Your task to perform on an android device: Go to accessibility settings Image 0: 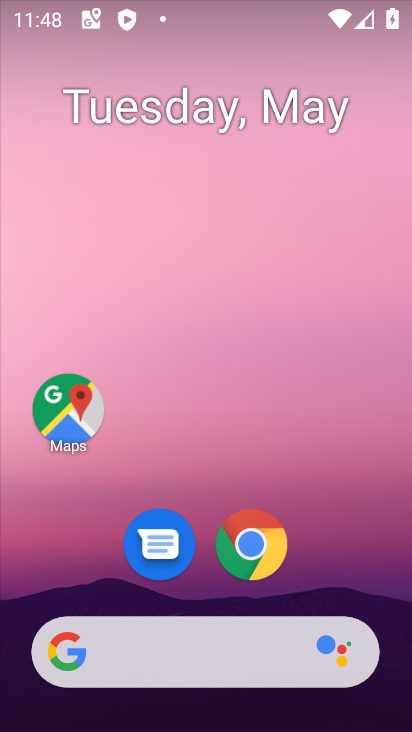
Step 0: click (197, 5)
Your task to perform on an android device: Go to accessibility settings Image 1: 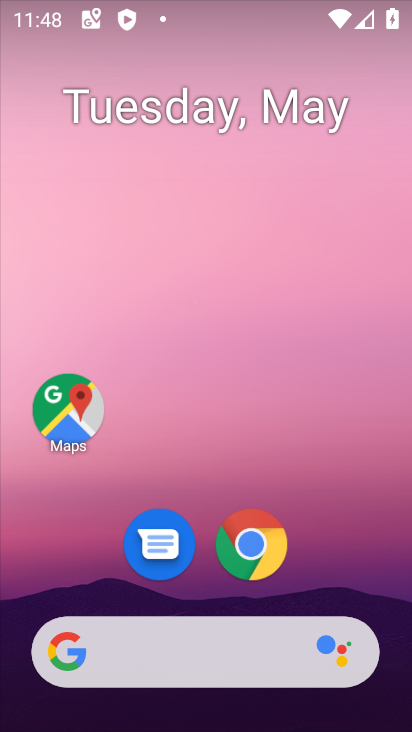
Step 1: drag from (333, 665) to (194, 108)
Your task to perform on an android device: Go to accessibility settings Image 2: 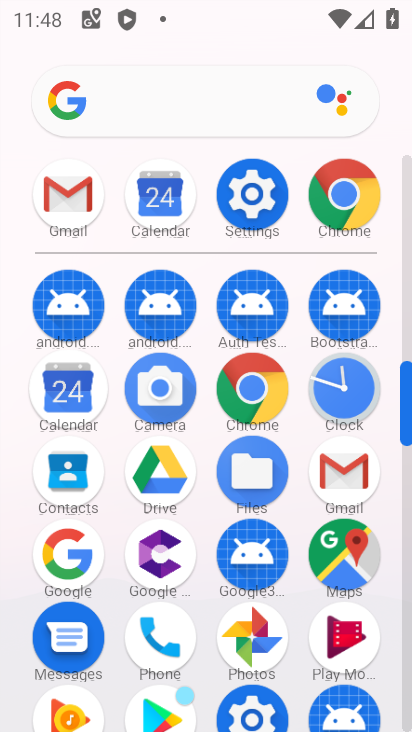
Step 2: click (335, 198)
Your task to perform on an android device: Go to accessibility settings Image 3: 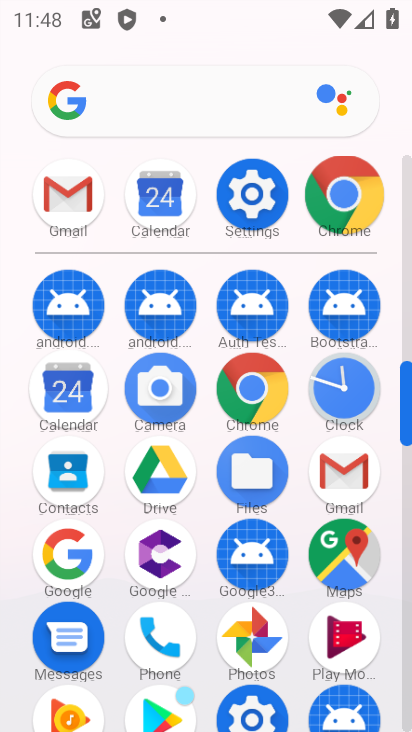
Step 3: click (336, 197)
Your task to perform on an android device: Go to accessibility settings Image 4: 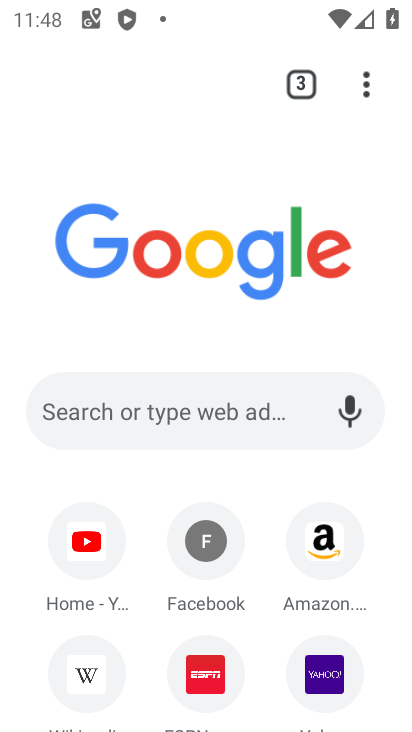
Step 4: press back button
Your task to perform on an android device: Go to accessibility settings Image 5: 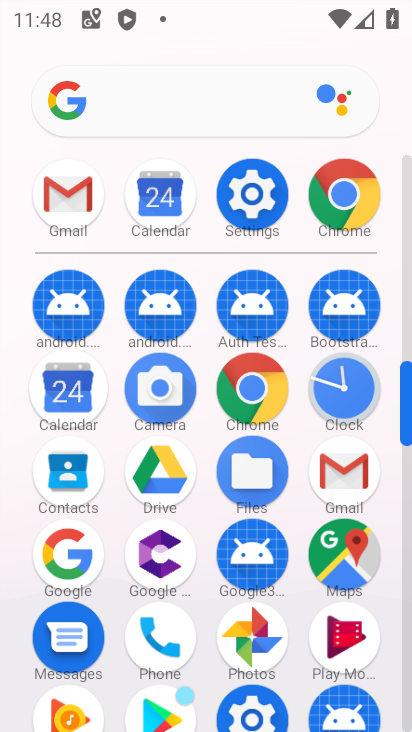
Step 5: click (256, 210)
Your task to perform on an android device: Go to accessibility settings Image 6: 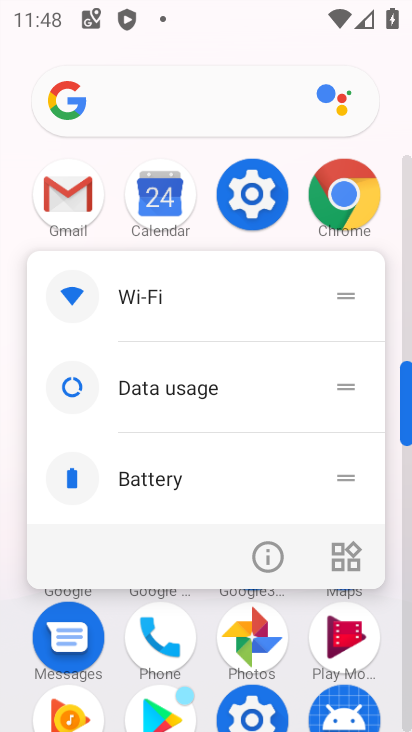
Step 6: click (254, 202)
Your task to perform on an android device: Go to accessibility settings Image 7: 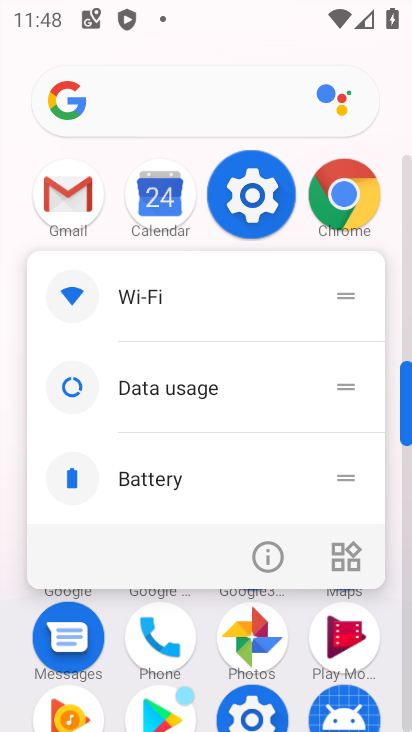
Step 7: click (254, 198)
Your task to perform on an android device: Go to accessibility settings Image 8: 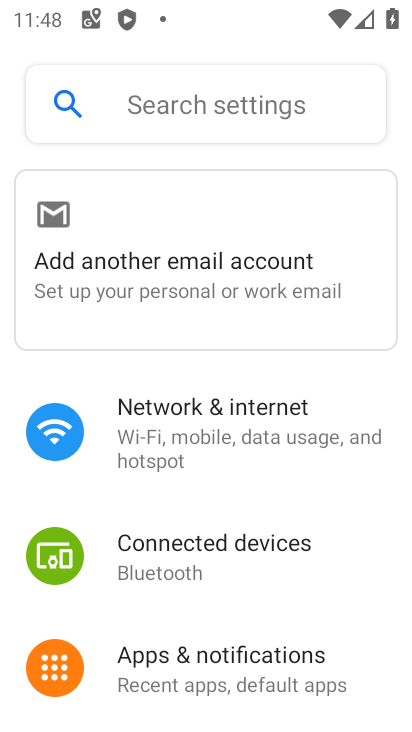
Step 8: drag from (266, 554) to (249, 169)
Your task to perform on an android device: Go to accessibility settings Image 9: 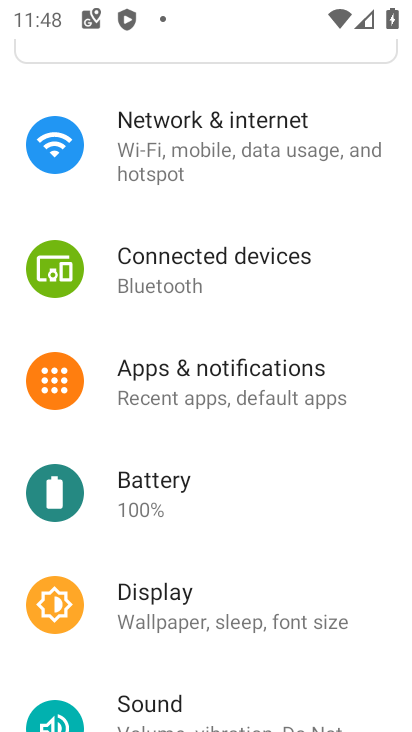
Step 9: drag from (233, 498) to (188, 201)
Your task to perform on an android device: Go to accessibility settings Image 10: 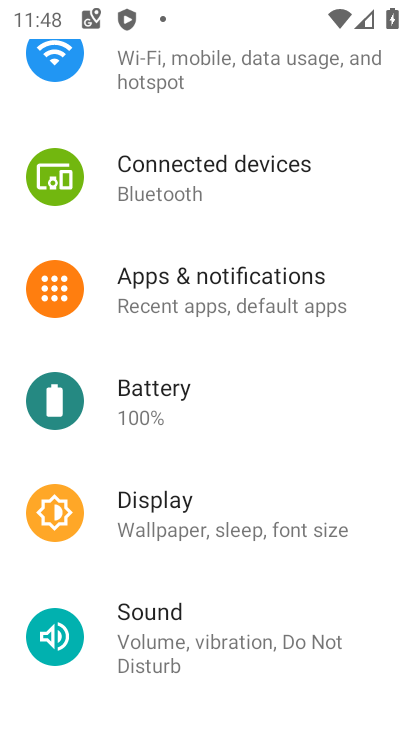
Step 10: drag from (221, 412) to (220, 170)
Your task to perform on an android device: Go to accessibility settings Image 11: 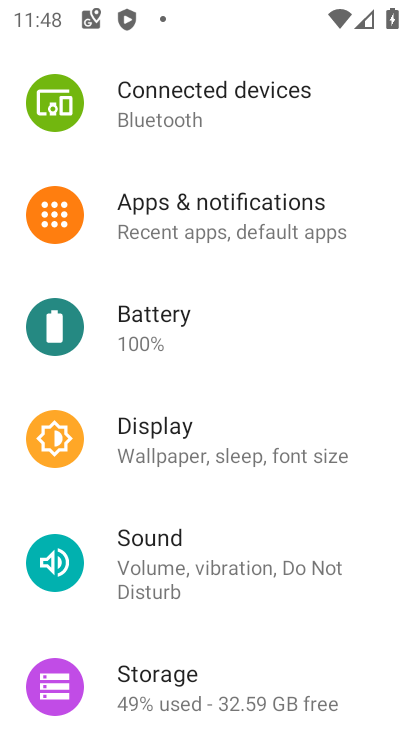
Step 11: drag from (230, 509) to (172, 27)
Your task to perform on an android device: Go to accessibility settings Image 12: 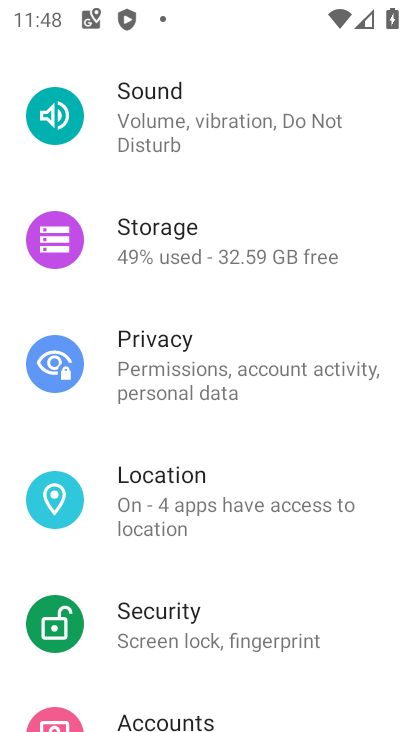
Step 12: drag from (214, 424) to (214, 139)
Your task to perform on an android device: Go to accessibility settings Image 13: 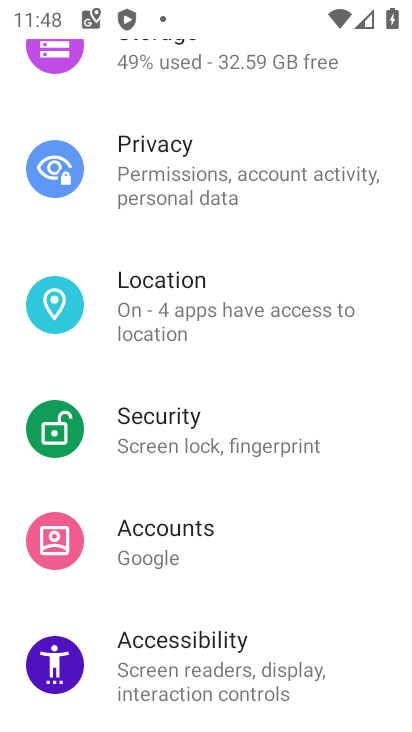
Step 13: drag from (258, 469) to (268, 209)
Your task to perform on an android device: Go to accessibility settings Image 14: 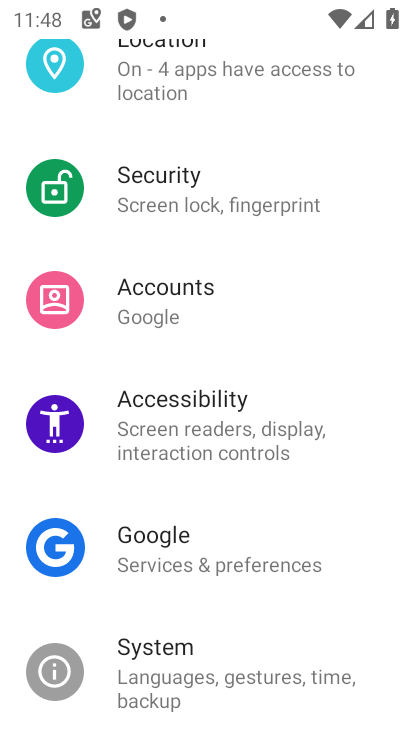
Step 14: click (180, 445)
Your task to perform on an android device: Go to accessibility settings Image 15: 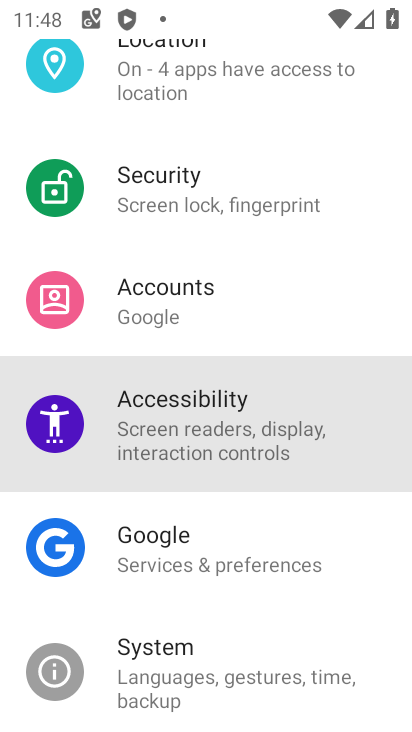
Step 15: click (182, 435)
Your task to perform on an android device: Go to accessibility settings Image 16: 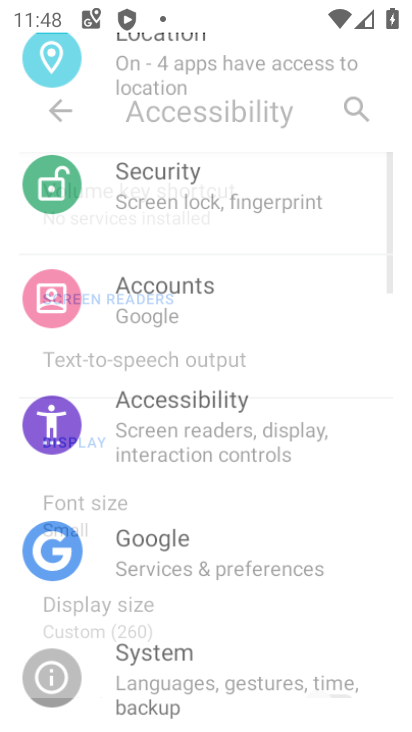
Step 16: click (183, 434)
Your task to perform on an android device: Go to accessibility settings Image 17: 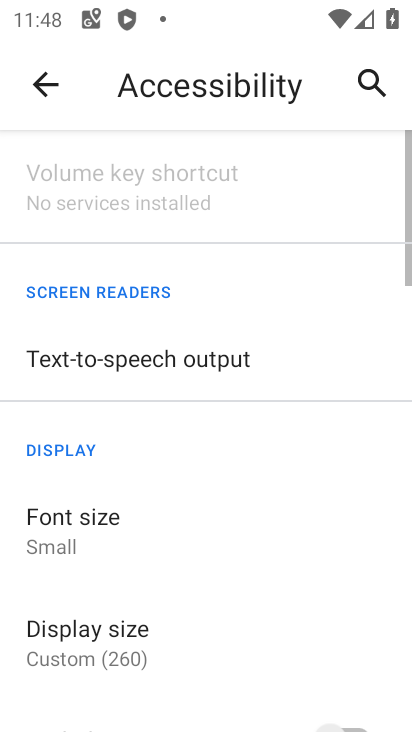
Step 17: click (184, 434)
Your task to perform on an android device: Go to accessibility settings Image 18: 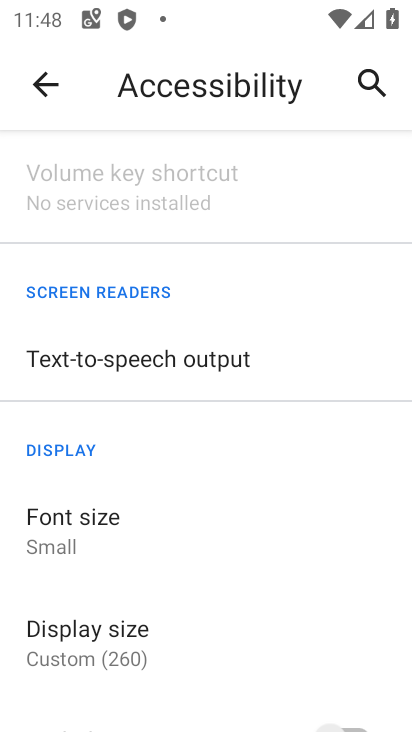
Step 18: task complete